Your task to perform on an android device: turn off sleep mode Image 0: 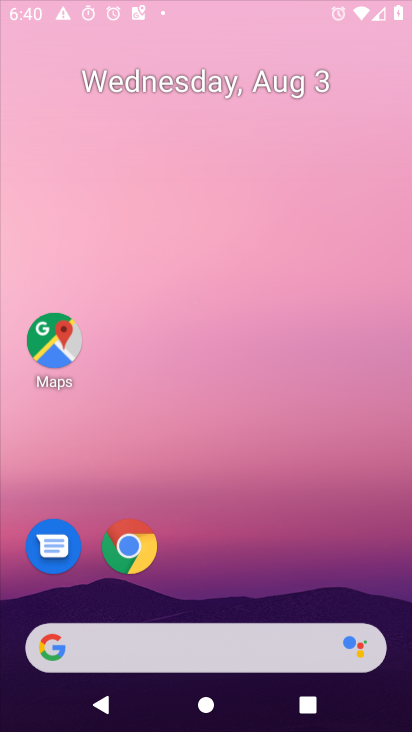
Step 0: press home button
Your task to perform on an android device: turn off sleep mode Image 1: 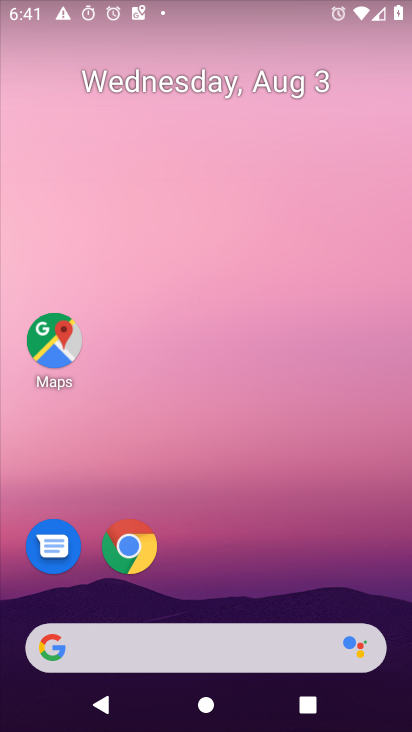
Step 1: drag from (236, 542) to (260, 121)
Your task to perform on an android device: turn off sleep mode Image 2: 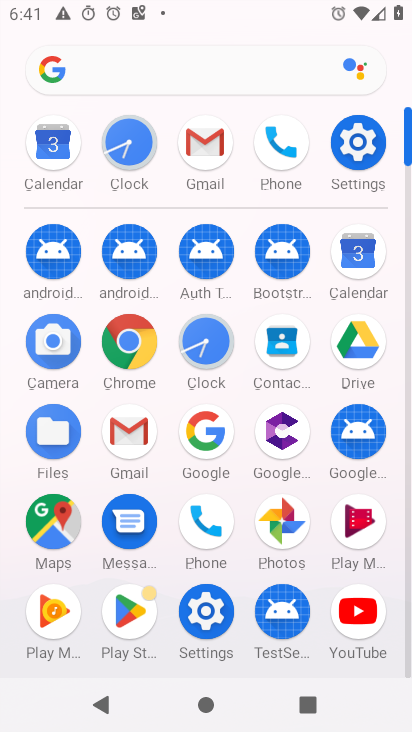
Step 2: click (351, 149)
Your task to perform on an android device: turn off sleep mode Image 3: 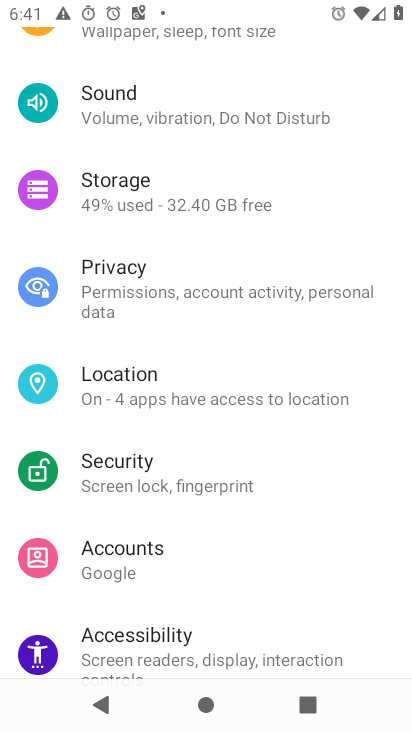
Step 3: drag from (358, 244) to (339, 658)
Your task to perform on an android device: turn off sleep mode Image 4: 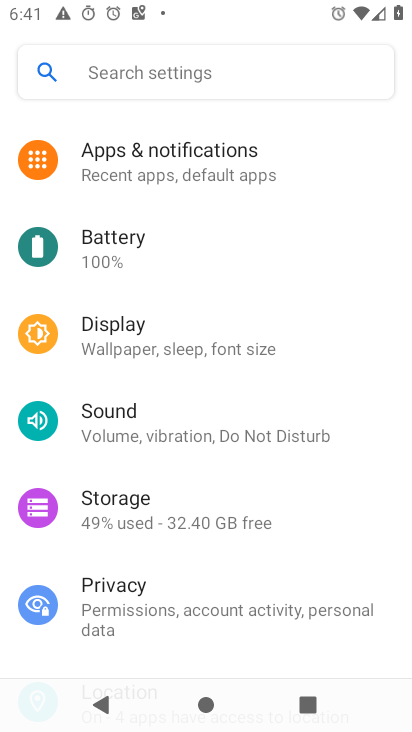
Step 4: click (110, 333)
Your task to perform on an android device: turn off sleep mode Image 5: 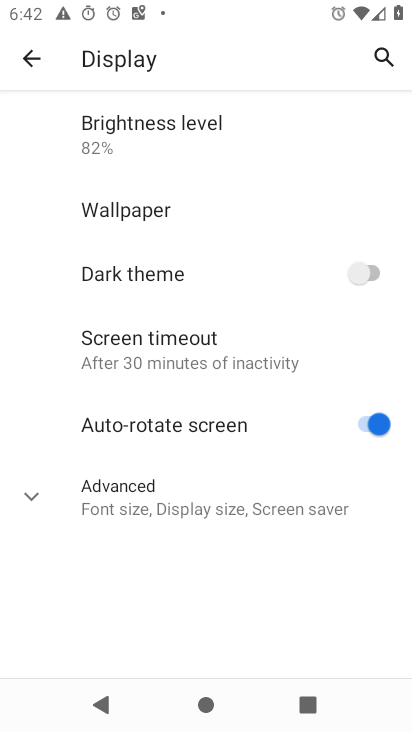
Step 5: task complete